Your task to perform on an android device: Clear all items from cart on ebay.com. Add corsair k70 to the cart on ebay.com, then select checkout. Image 0: 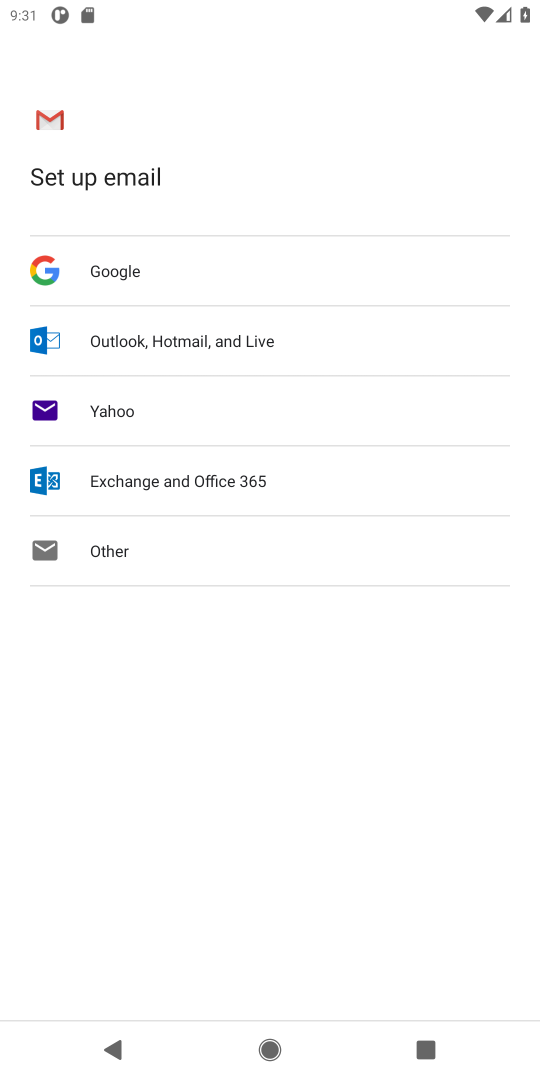
Step 0: press home button
Your task to perform on an android device: Clear all items from cart on ebay.com. Add corsair k70 to the cart on ebay.com, then select checkout. Image 1: 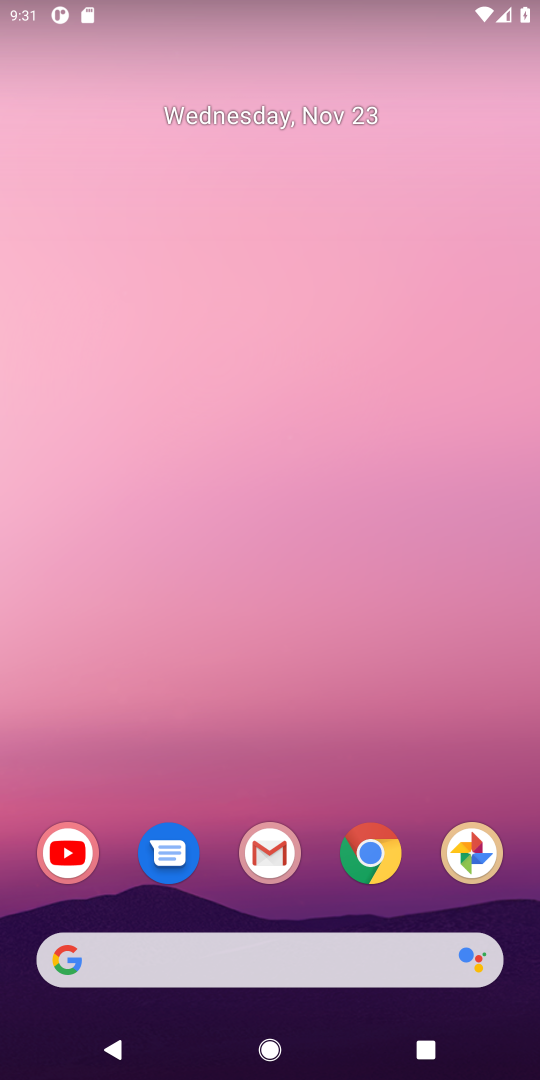
Step 1: click (376, 856)
Your task to perform on an android device: Clear all items from cart on ebay.com. Add corsair k70 to the cart on ebay.com, then select checkout. Image 2: 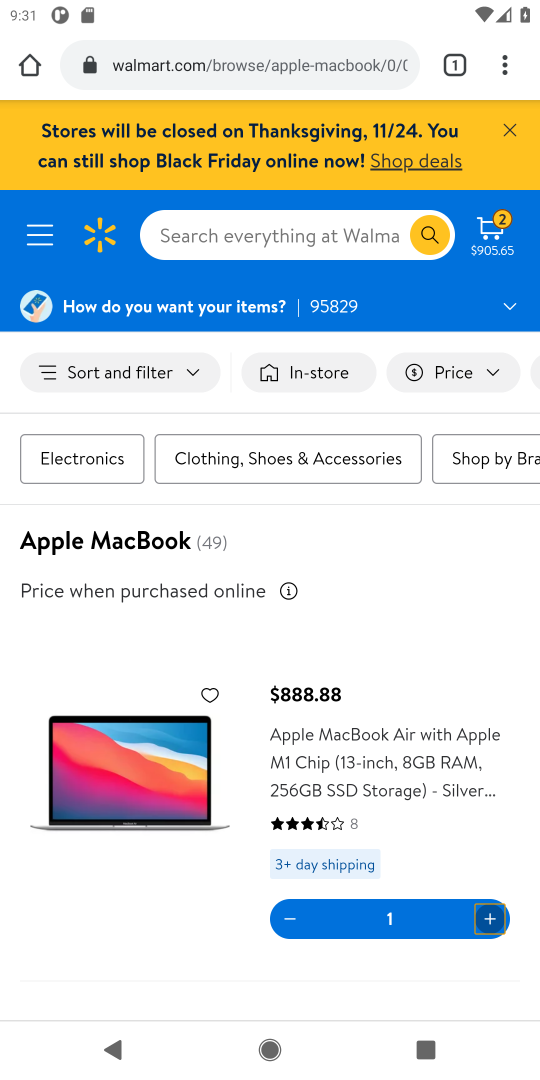
Step 2: click (223, 79)
Your task to perform on an android device: Clear all items from cart on ebay.com. Add corsair k70 to the cart on ebay.com, then select checkout. Image 3: 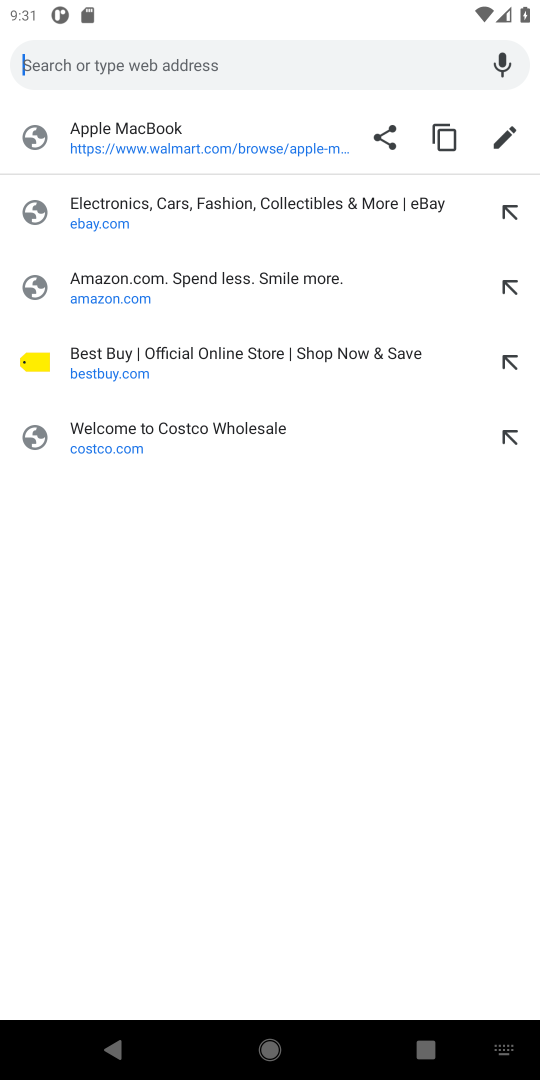
Step 3: click (99, 215)
Your task to perform on an android device: Clear all items from cart on ebay.com. Add corsair k70 to the cart on ebay.com, then select checkout. Image 4: 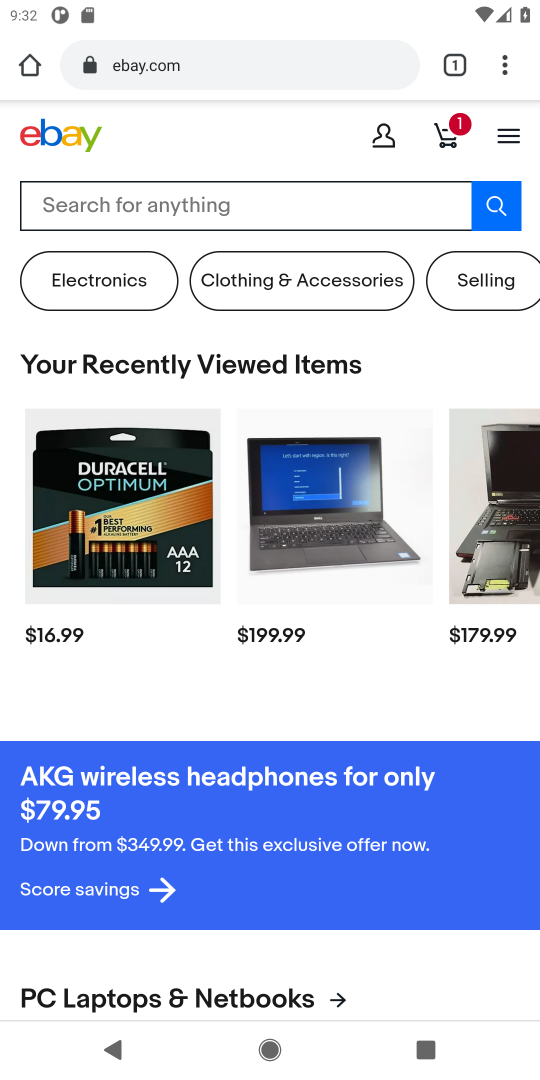
Step 4: click (449, 126)
Your task to perform on an android device: Clear all items from cart on ebay.com. Add corsair k70 to the cart on ebay.com, then select checkout. Image 5: 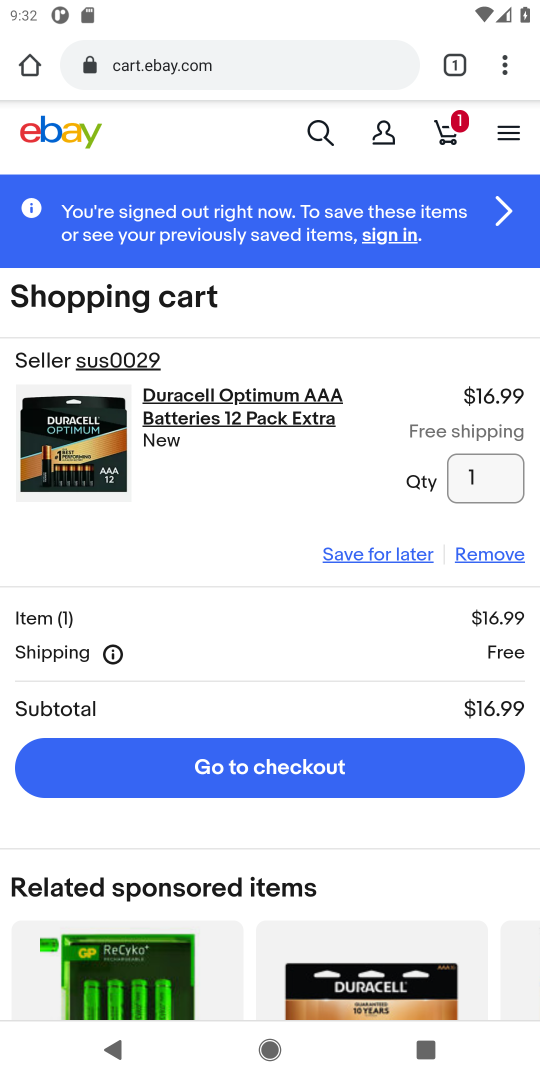
Step 5: click (494, 563)
Your task to perform on an android device: Clear all items from cart on ebay.com. Add corsair k70 to the cart on ebay.com, then select checkout. Image 6: 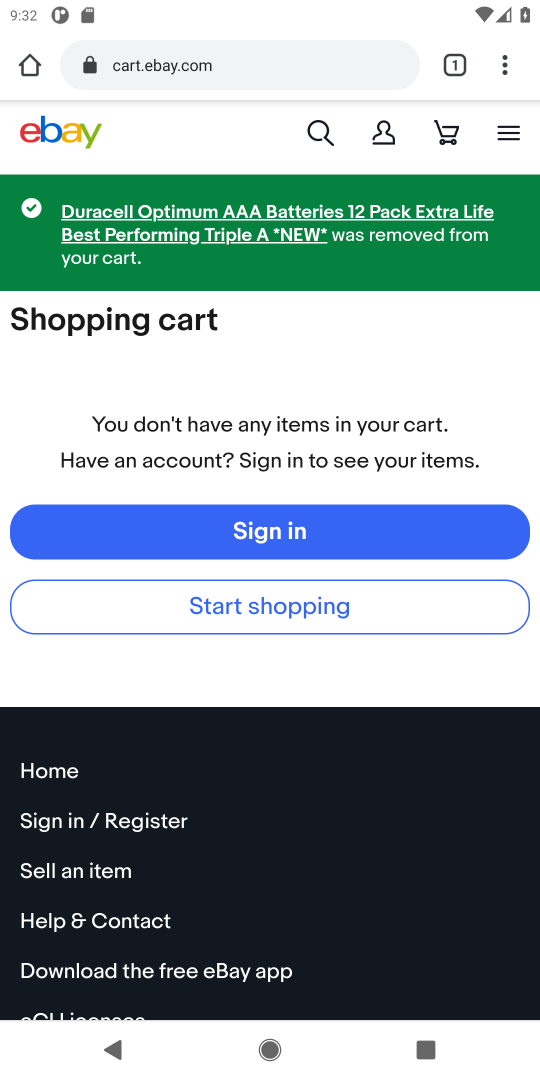
Step 6: click (312, 128)
Your task to perform on an android device: Clear all items from cart on ebay.com. Add corsair k70 to the cart on ebay.com, then select checkout. Image 7: 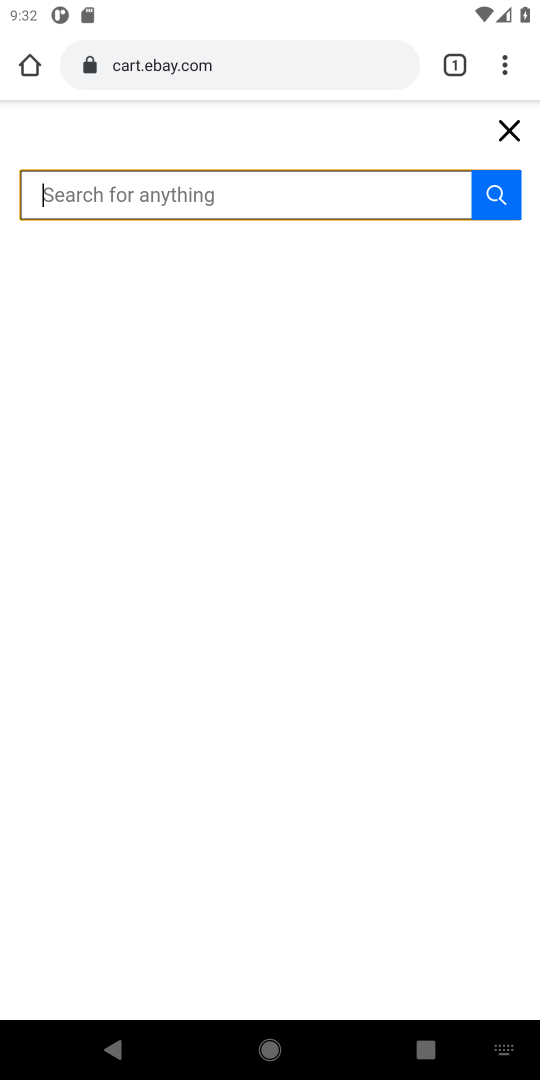
Step 7: type "corsair k70"
Your task to perform on an android device: Clear all items from cart on ebay.com. Add corsair k70 to the cart on ebay.com, then select checkout. Image 8: 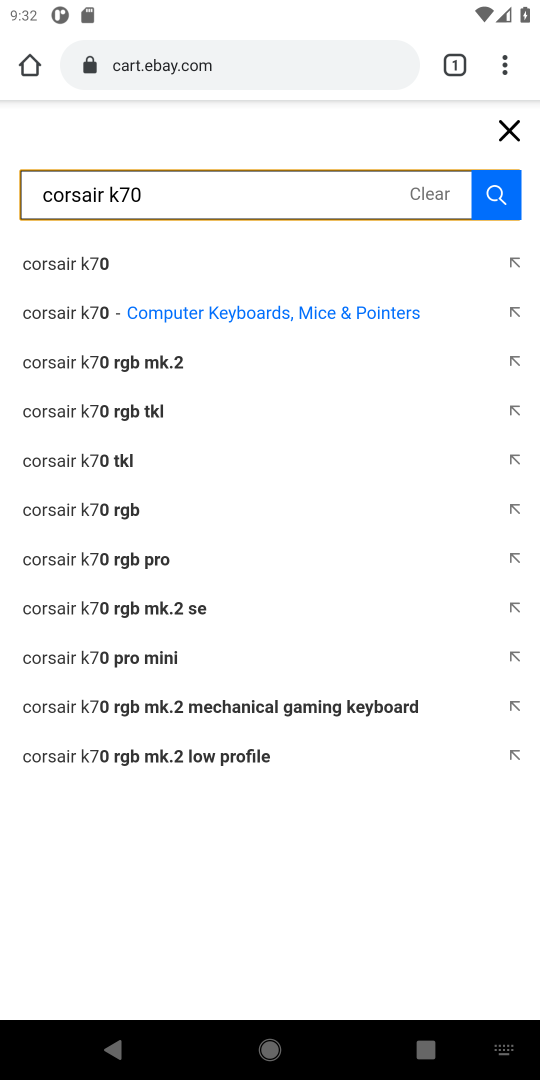
Step 8: click (56, 276)
Your task to perform on an android device: Clear all items from cart on ebay.com. Add corsair k70 to the cart on ebay.com, then select checkout. Image 9: 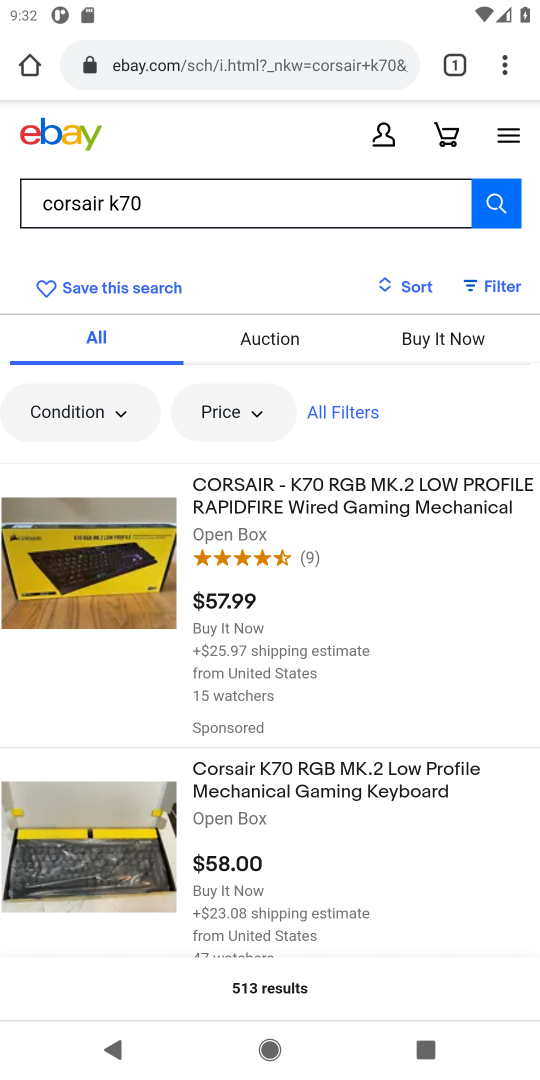
Step 9: click (72, 600)
Your task to perform on an android device: Clear all items from cart on ebay.com. Add corsair k70 to the cart on ebay.com, then select checkout. Image 10: 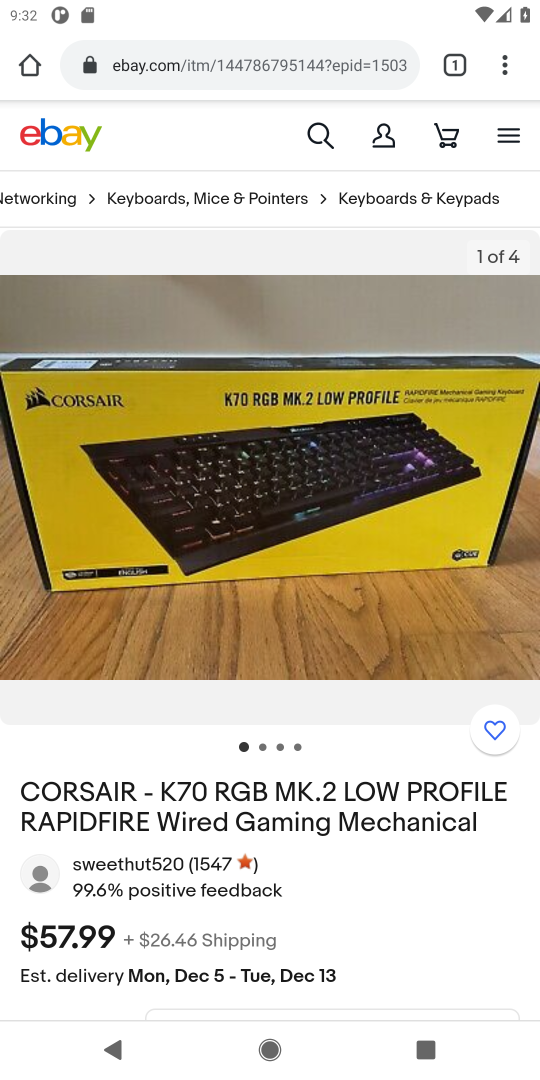
Step 10: drag from (190, 686) to (189, 344)
Your task to perform on an android device: Clear all items from cart on ebay.com. Add corsair k70 to the cart on ebay.com, then select checkout. Image 11: 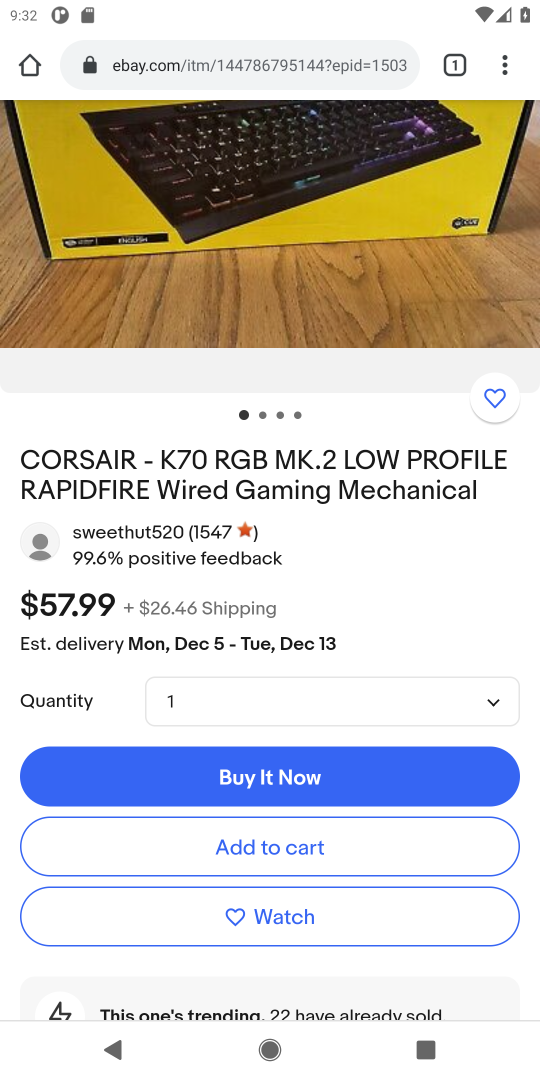
Step 11: click (225, 845)
Your task to perform on an android device: Clear all items from cart on ebay.com. Add corsair k70 to the cart on ebay.com, then select checkout. Image 12: 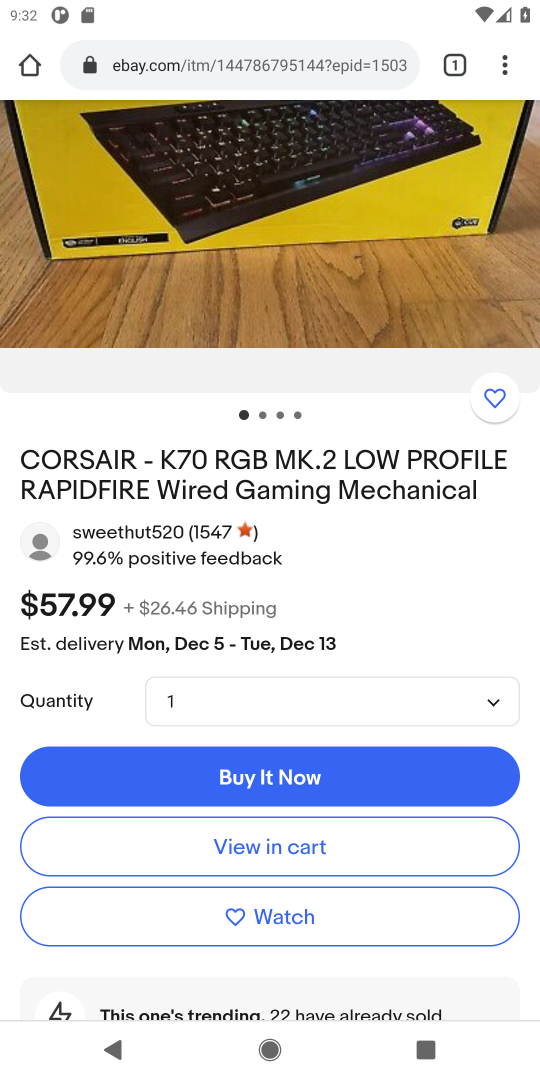
Step 12: click (225, 845)
Your task to perform on an android device: Clear all items from cart on ebay.com. Add corsair k70 to the cart on ebay.com, then select checkout. Image 13: 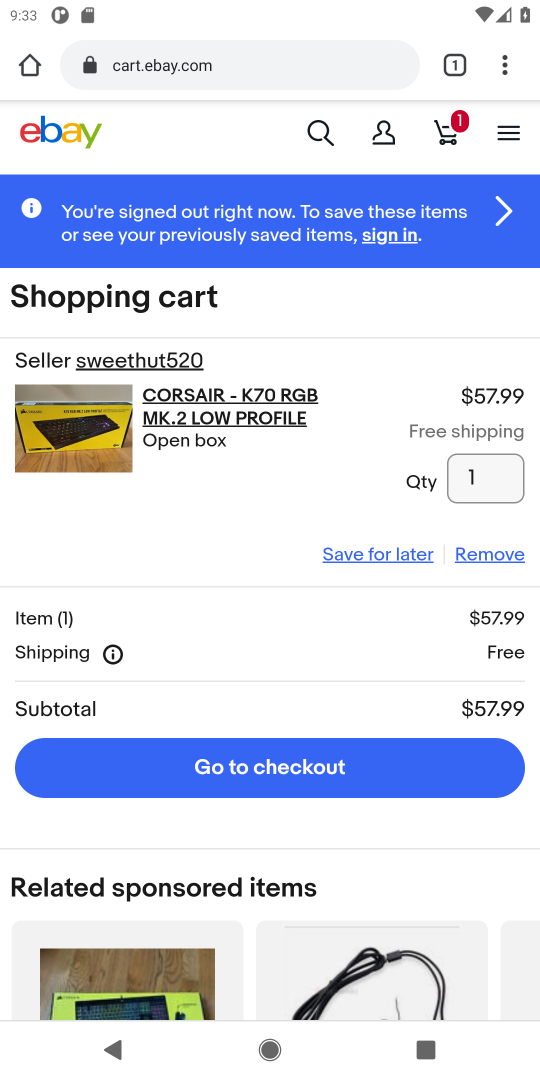
Step 13: click (237, 782)
Your task to perform on an android device: Clear all items from cart on ebay.com. Add corsair k70 to the cart on ebay.com, then select checkout. Image 14: 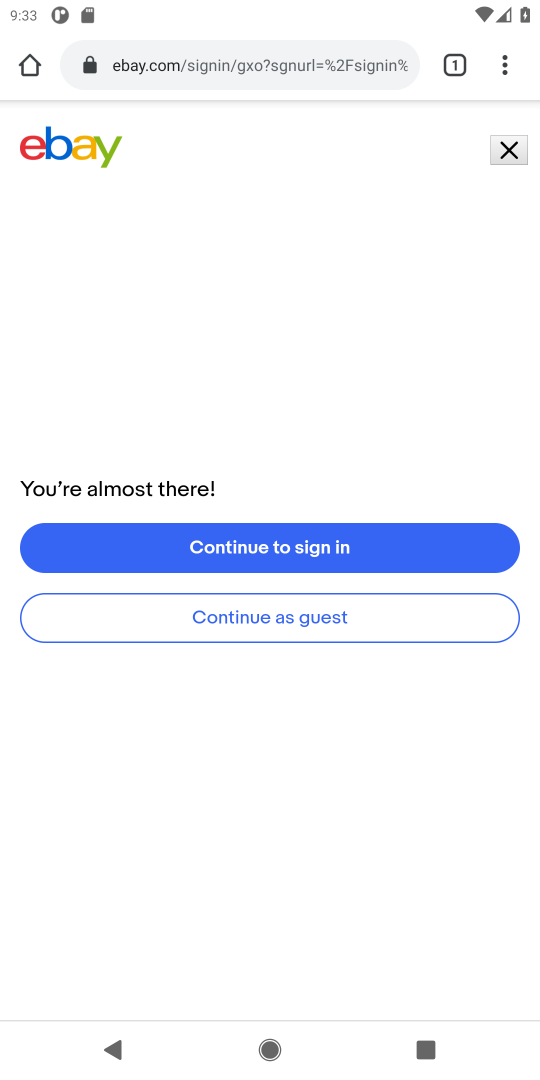
Step 14: task complete